Your task to perform on an android device: Open Yahoo.com Image 0: 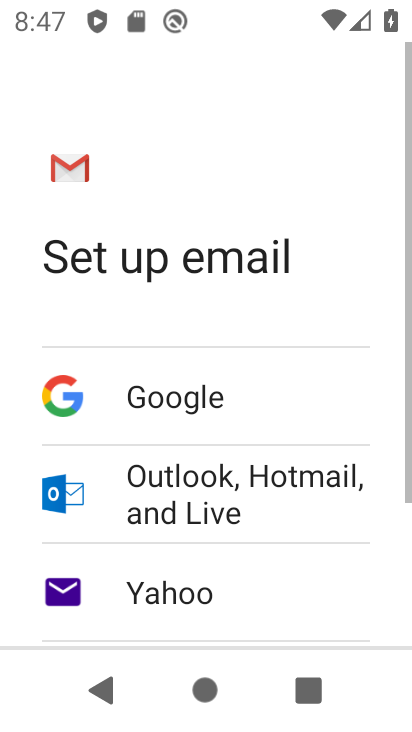
Step 0: press home button
Your task to perform on an android device: Open Yahoo.com Image 1: 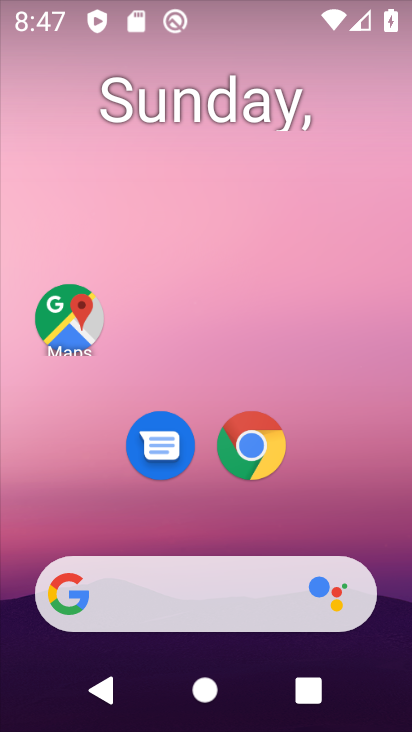
Step 1: click (274, 437)
Your task to perform on an android device: Open Yahoo.com Image 2: 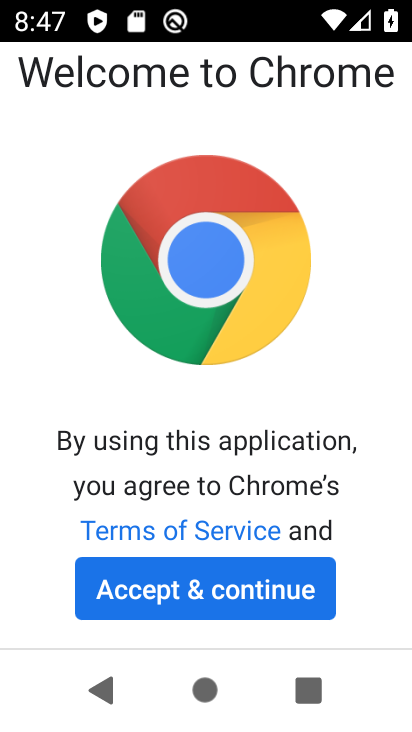
Step 2: click (155, 583)
Your task to perform on an android device: Open Yahoo.com Image 3: 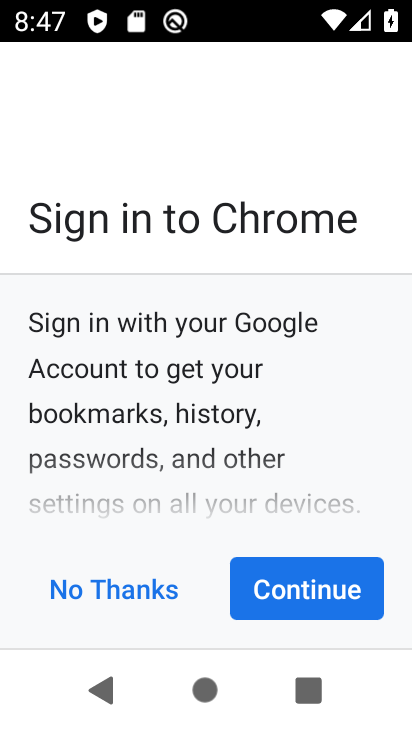
Step 3: click (233, 585)
Your task to perform on an android device: Open Yahoo.com Image 4: 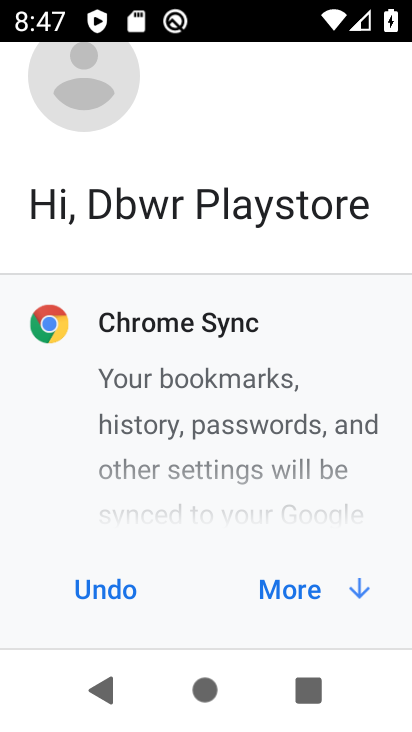
Step 4: click (294, 586)
Your task to perform on an android device: Open Yahoo.com Image 5: 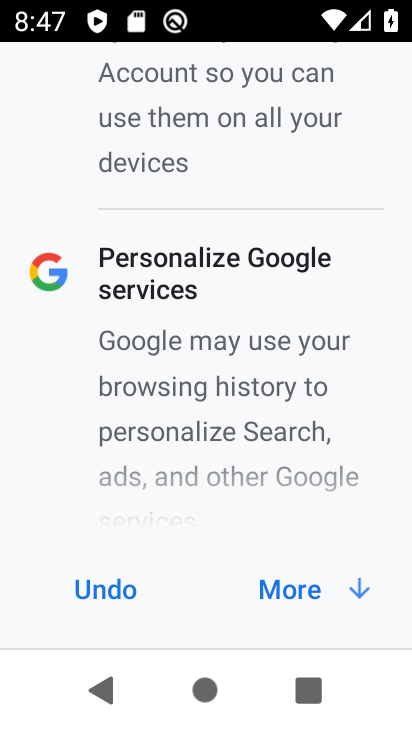
Step 5: click (294, 586)
Your task to perform on an android device: Open Yahoo.com Image 6: 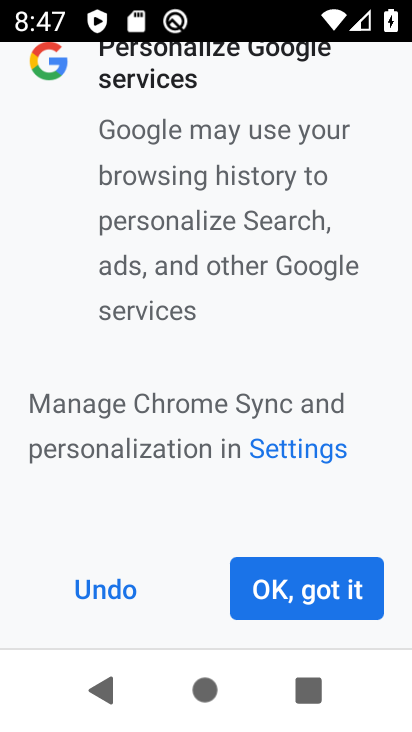
Step 6: click (314, 598)
Your task to perform on an android device: Open Yahoo.com Image 7: 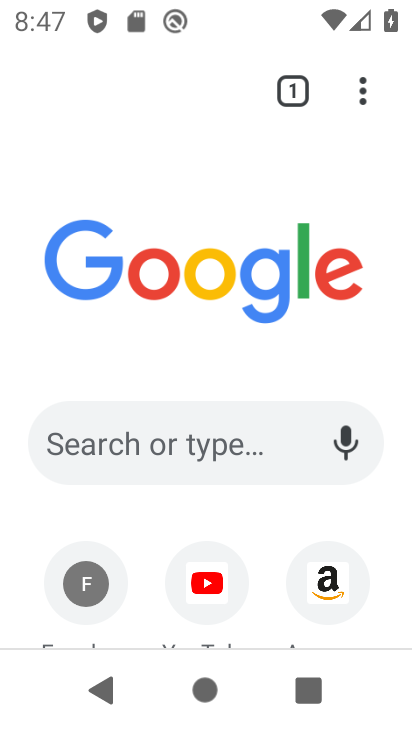
Step 7: click (283, 90)
Your task to perform on an android device: Open Yahoo.com Image 8: 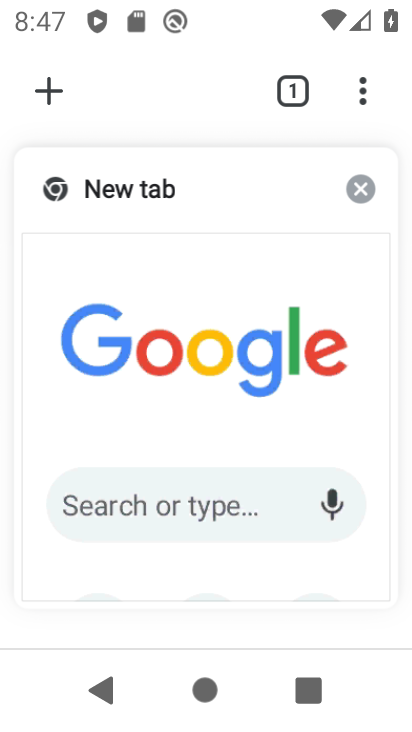
Step 8: click (172, 271)
Your task to perform on an android device: Open Yahoo.com Image 9: 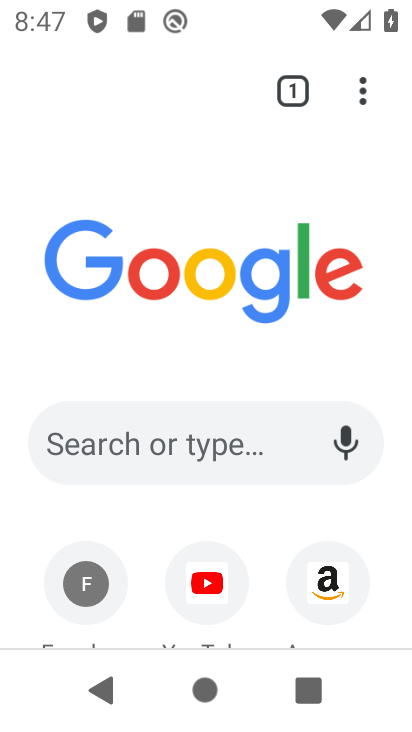
Step 9: drag from (216, 511) to (258, 229)
Your task to perform on an android device: Open Yahoo.com Image 10: 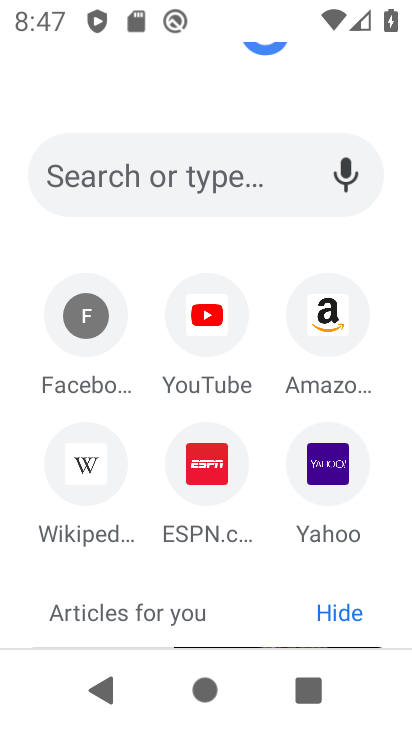
Step 10: click (310, 440)
Your task to perform on an android device: Open Yahoo.com Image 11: 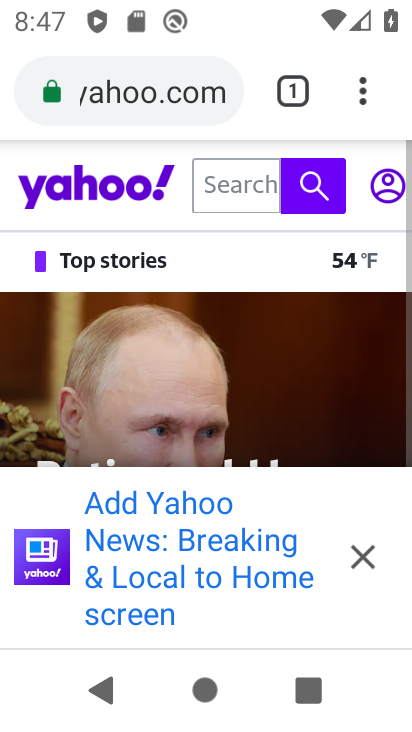
Step 11: task complete